Your task to perform on an android device: Open wifi settings Image 0: 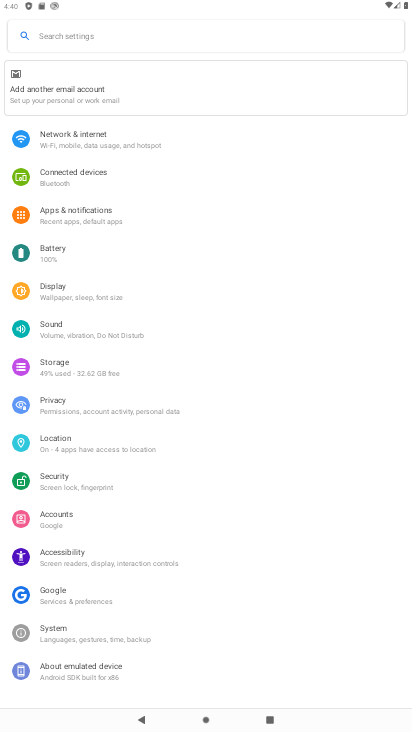
Step 0: press home button
Your task to perform on an android device: Open wifi settings Image 1: 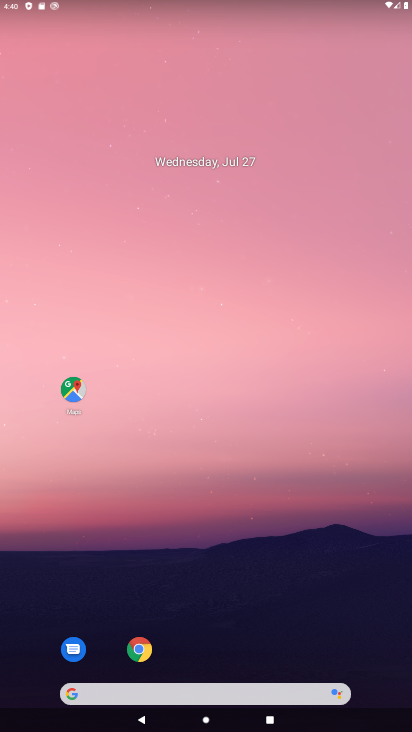
Step 1: drag from (162, 691) to (228, 0)
Your task to perform on an android device: Open wifi settings Image 2: 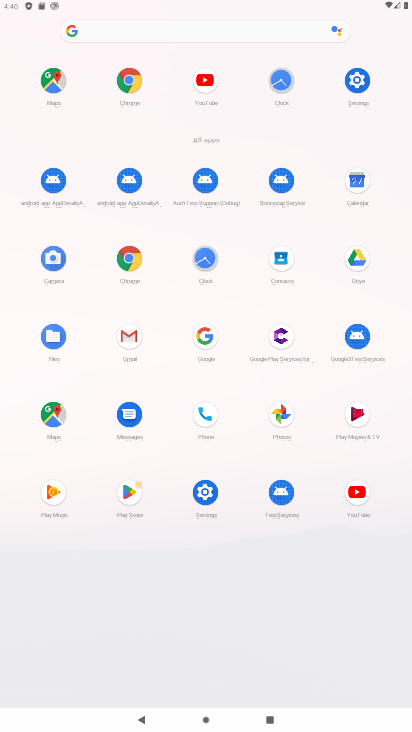
Step 2: click (357, 79)
Your task to perform on an android device: Open wifi settings Image 3: 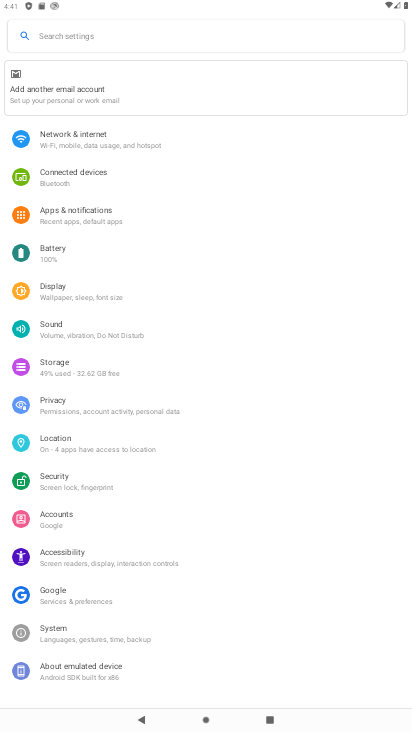
Step 3: click (76, 141)
Your task to perform on an android device: Open wifi settings Image 4: 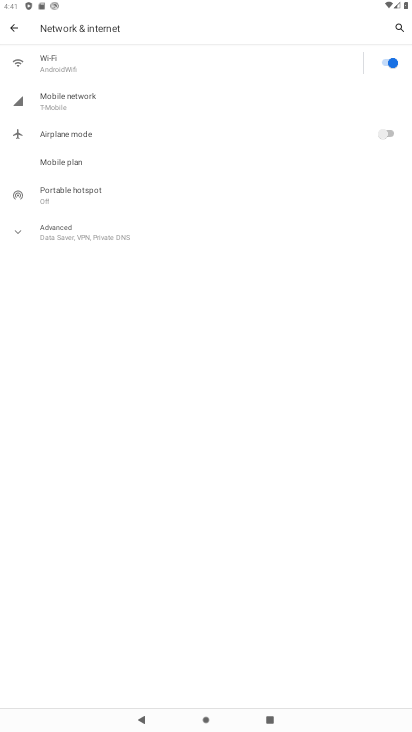
Step 4: click (47, 68)
Your task to perform on an android device: Open wifi settings Image 5: 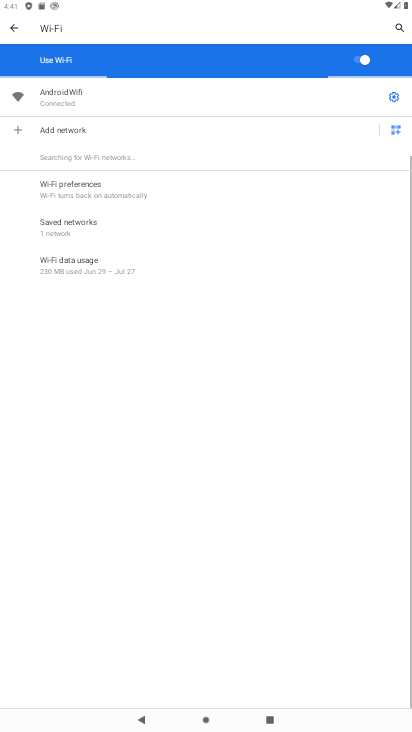
Step 5: click (60, 95)
Your task to perform on an android device: Open wifi settings Image 6: 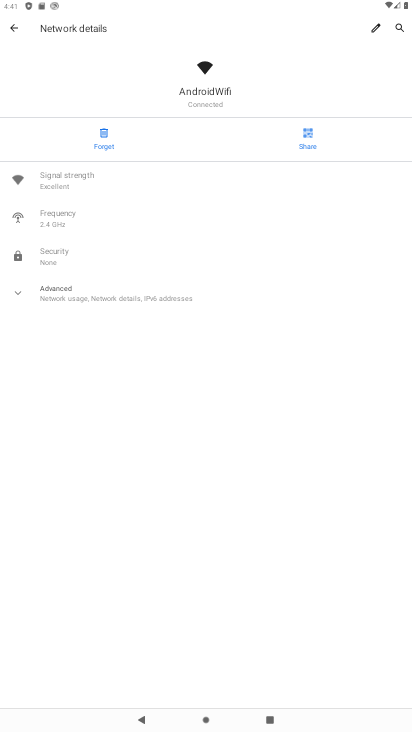
Step 6: task complete